Your task to perform on an android device: open chrome privacy settings Image 0: 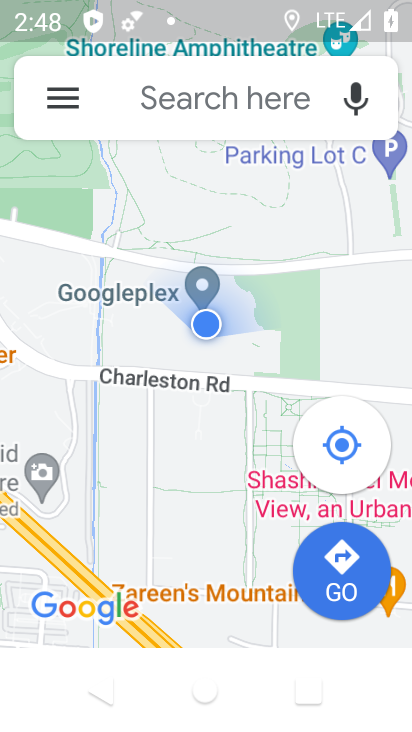
Step 0: press home button
Your task to perform on an android device: open chrome privacy settings Image 1: 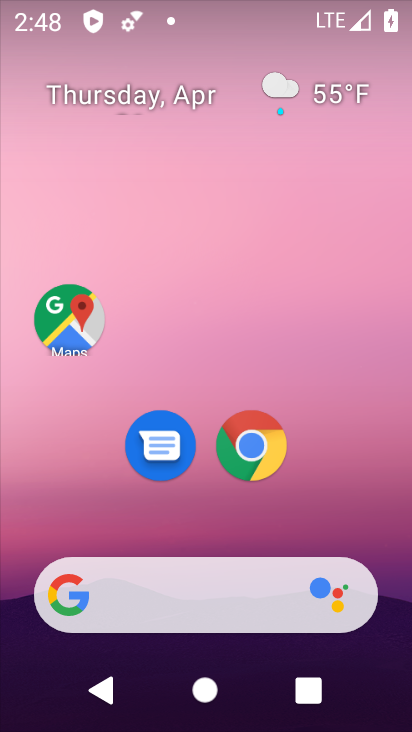
Step 1: click (251, 440)
Your task to perform on an android device: open chrome privacy settings Image 2: 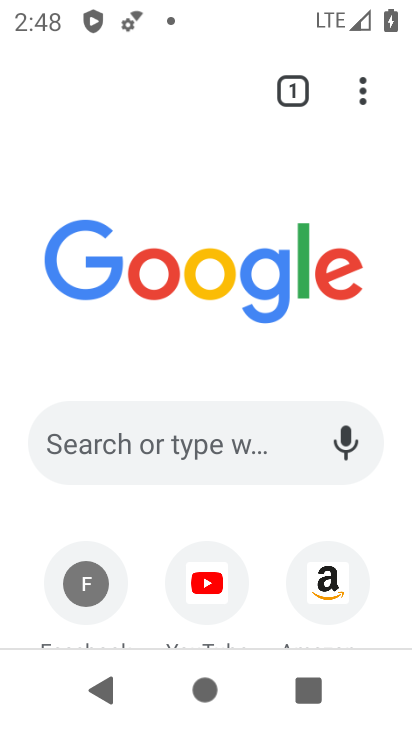
Step 2: click (366, 95)
Your task to perform on an android device: open chrome privacy settings Image 3: 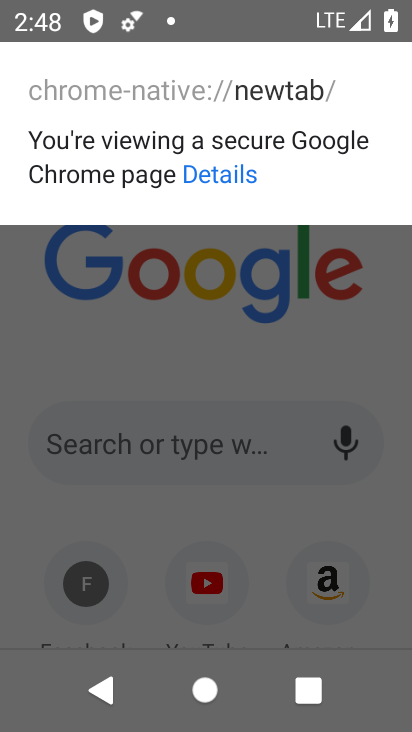
Step 3: press back button
Your task to perform on an android device: open chrome privacy settings Image 4: 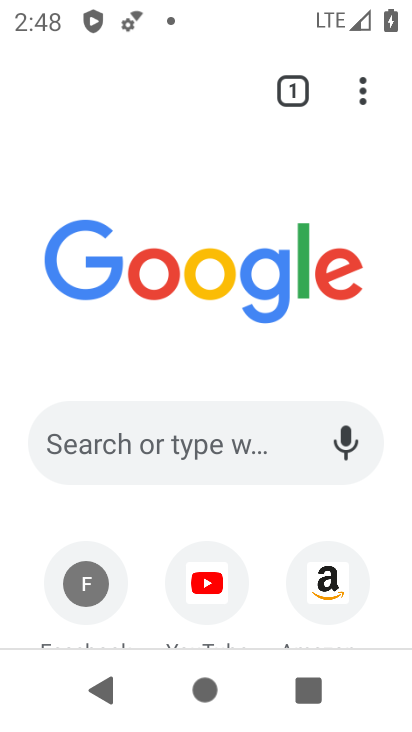
Step 4: drag from (360, 90) to (245, 448)
Your task to perform on an android device: open chrome privacy settings Image 5: 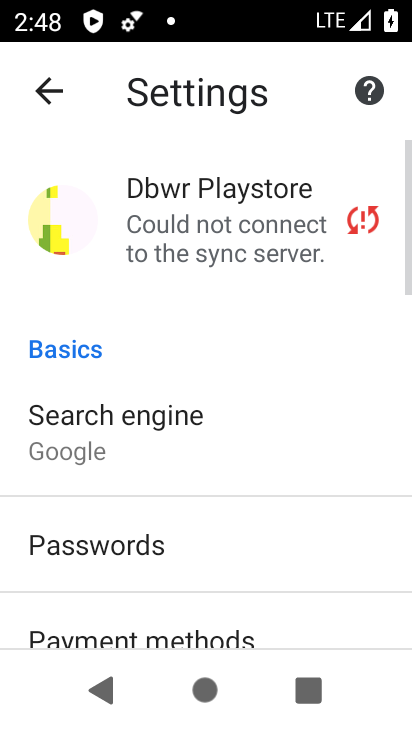
Step 5: drag from (215, 568) to (250, 379)
Your task to perform on an android device: open chrome privacy settings Image 6: 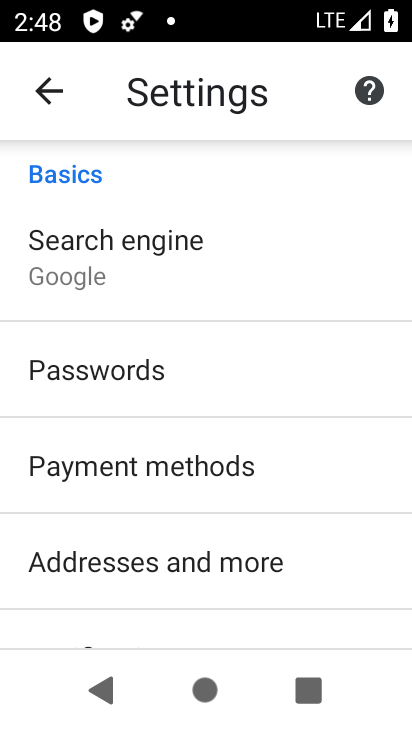
Step 6: drag from (225, 520) to (298, 375)
Your task to perform on an android device: open chrome privacy settings Image 7: 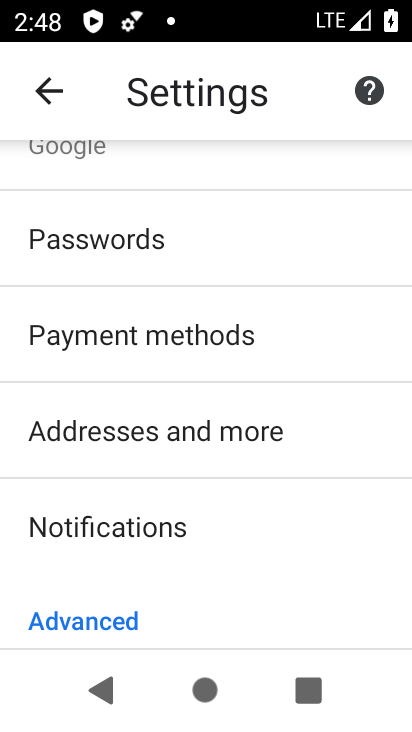
Step 7: drag from (226, 550) to (318, 343)
Your task to perform on an android device: open chrome privacy settings Image 8: 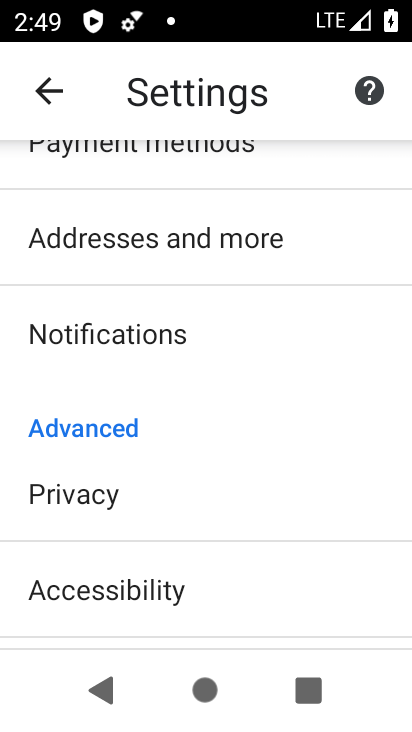
Step 8: click (94, 491)
Your task to perform on an android device: open chrome privacy settings Image 9: 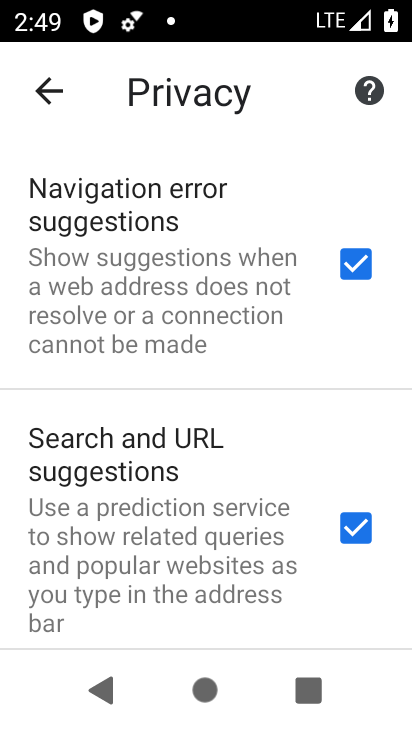
Step 9: task complete